Your task to perform on an android device: Open Reddit.com Image 0: 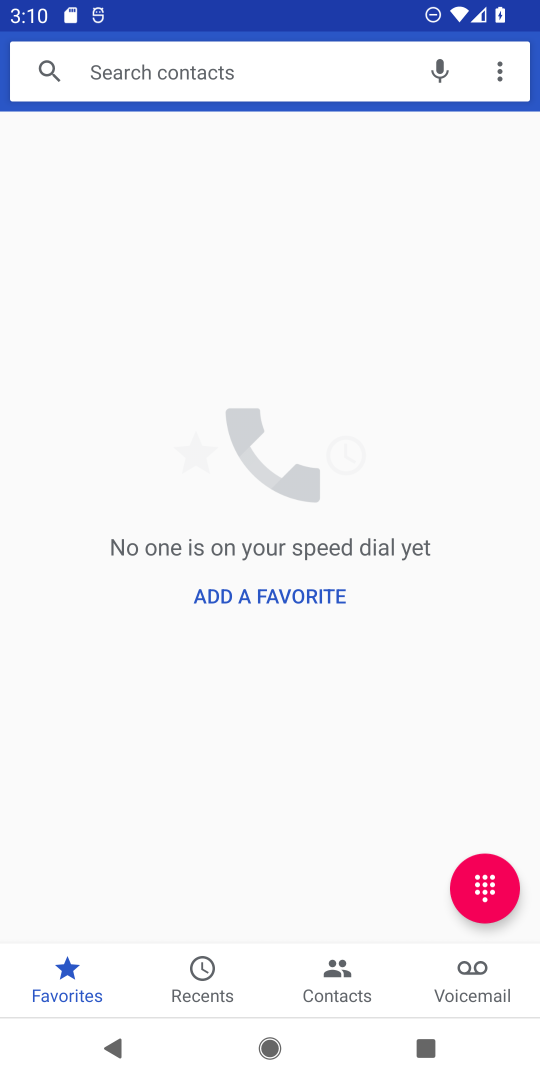
Step 0: press home button
Your task to perform on an android device: Open Reddit.com Image 1: 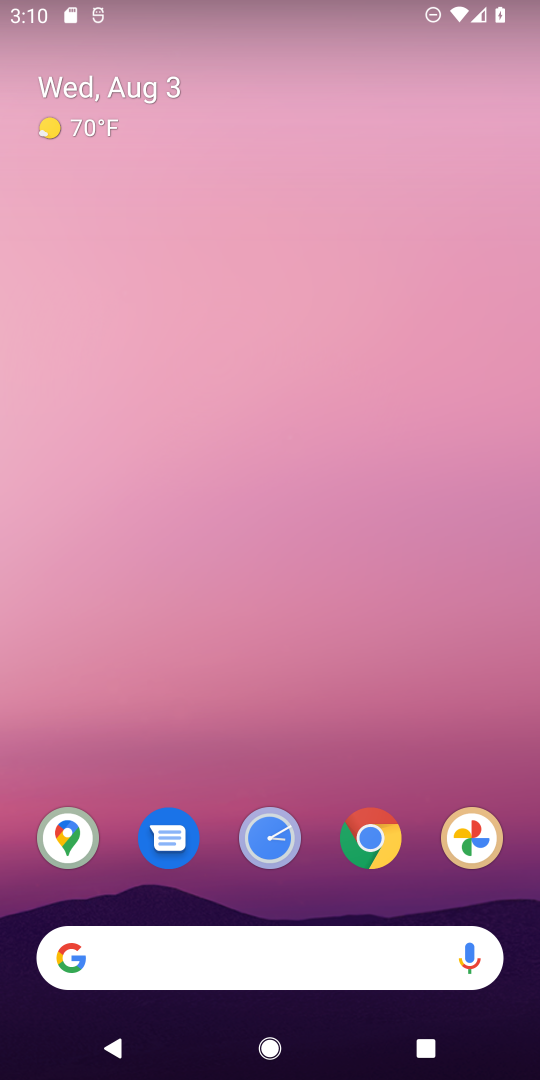
Step 1: click (373, 843)
Your task to perform on an android device: Open Reddit.com Image 2: 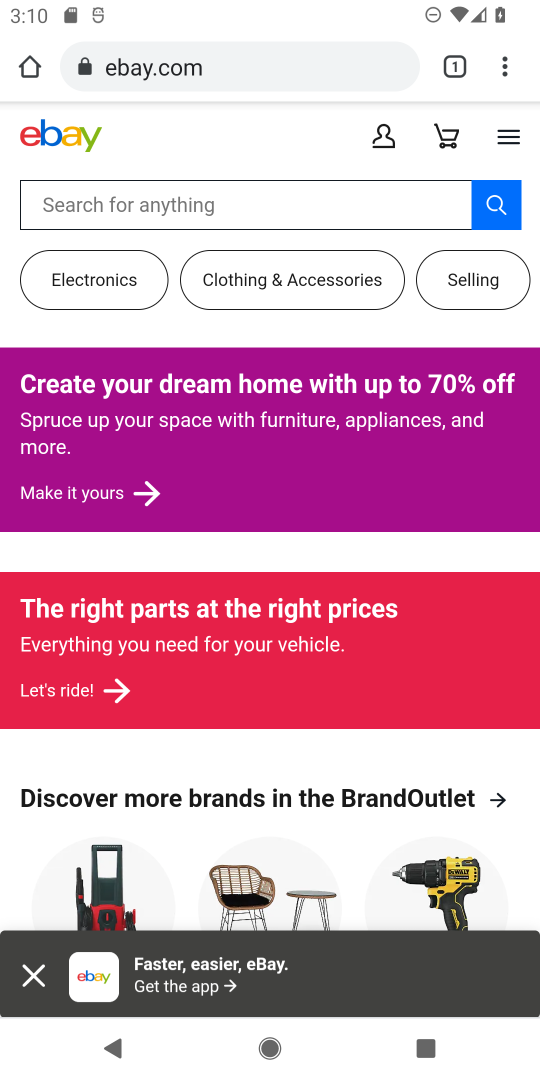
Step 2: click (253, 73)
Your task to perform on an android device: Open Reddit.com Image 3: 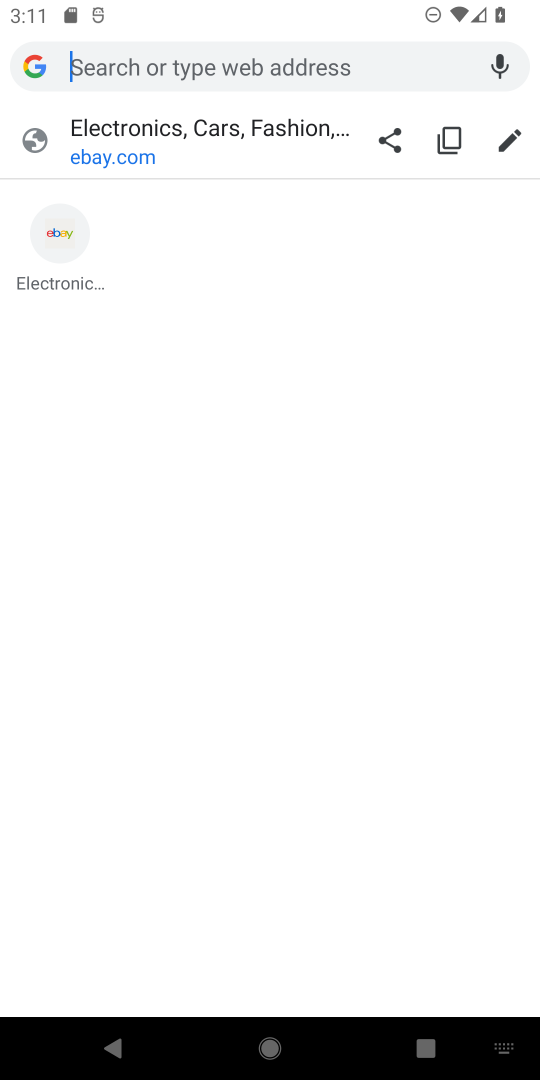
Step 3: type "reddit.com"
Your task to perform on an android device: Open Reddit.com Image 4: 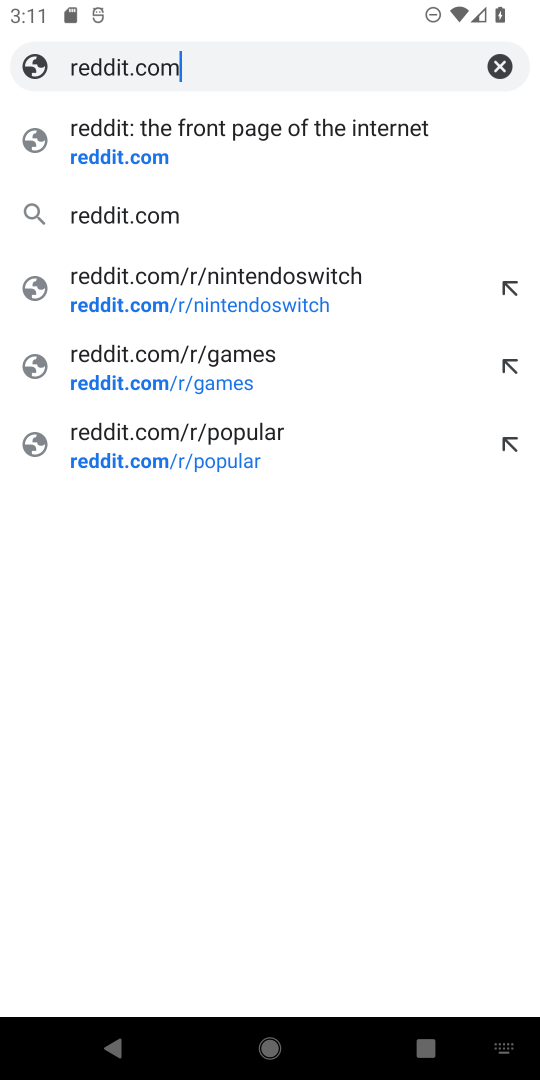
Step 4: click (303, 156)
Your task to perform on an android device: Open Reddit.com Image 5: 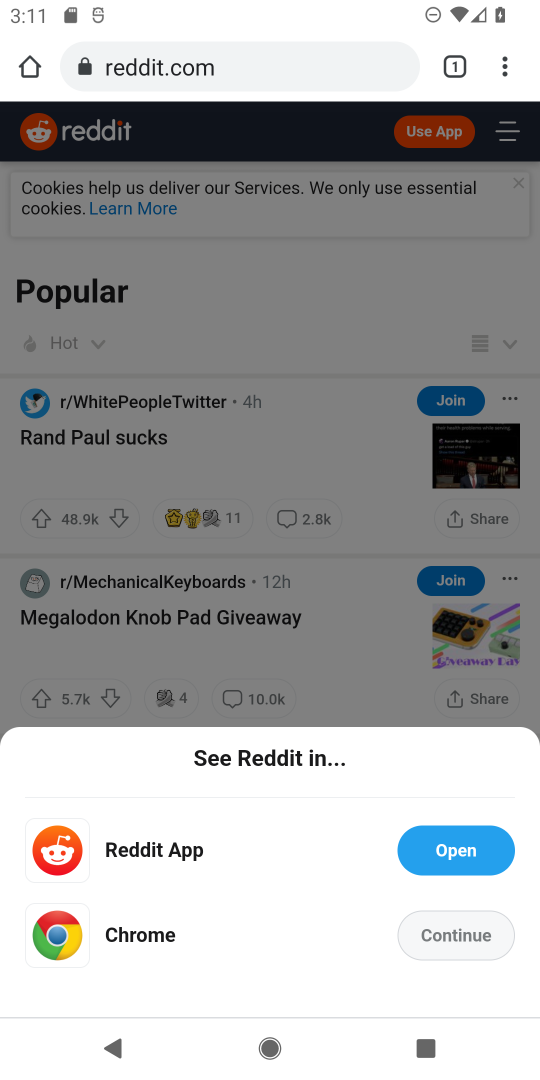
Step 5: task complete